Your task to perform on an android device: Go to calendar. Show me events next week Image 0: 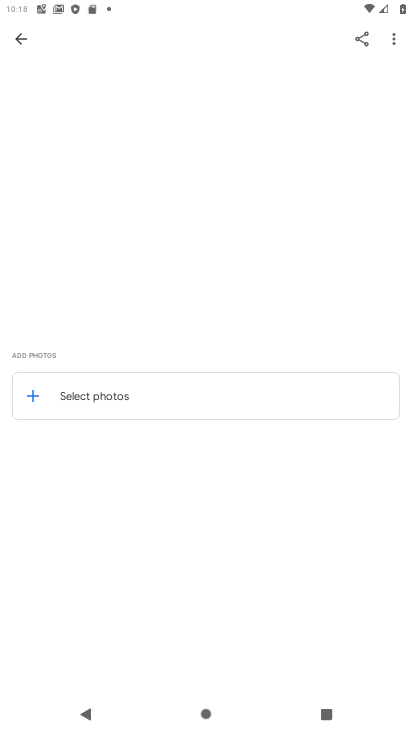
Step 0: press home button
Your task to perform on an android device: Go to calendar. Show me events next week Image 1: 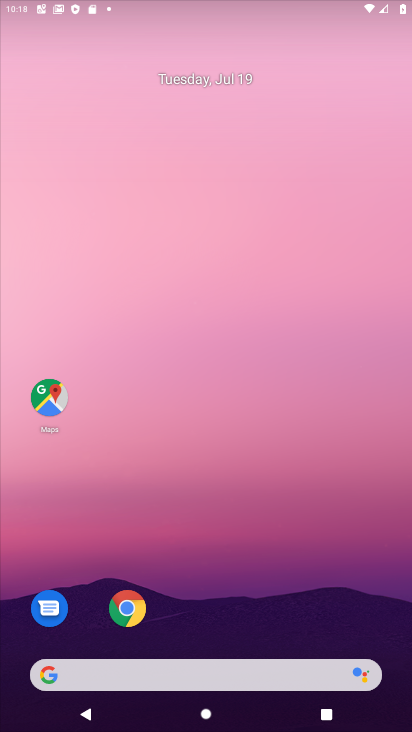
Step 1: drag from (256, 580) to (257, 223)
Your task to perform on an android device: Go to calendar. Show me events next week Image 2: 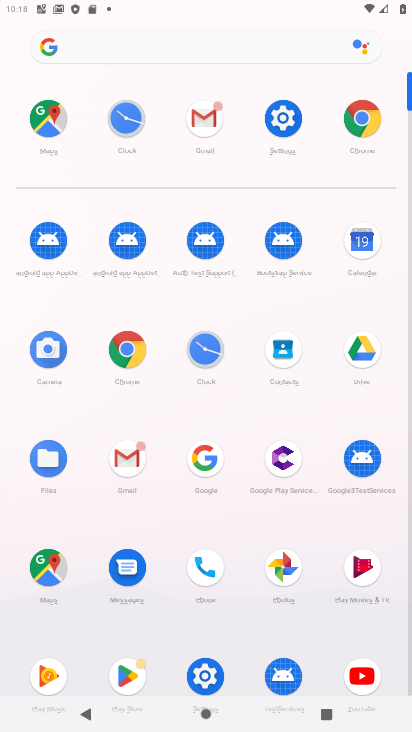
Step 2: click (368, 252)
Your task to perform on an android device: Go to calendar. Show me events next week Image 3: 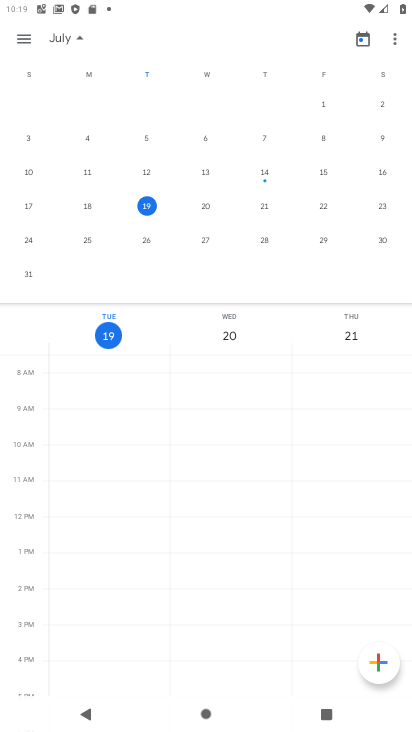
Step 3: click (149, 239)
Your task to perform on an android device: Go to calendar. Show me events next week Image 4: 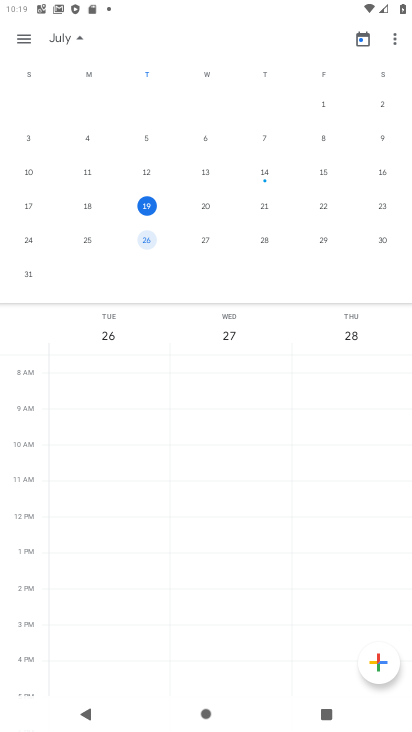
Step 4: click (63, 36)
Your task to perform on an android device: Go to calendar. Show me events next week Image 5: 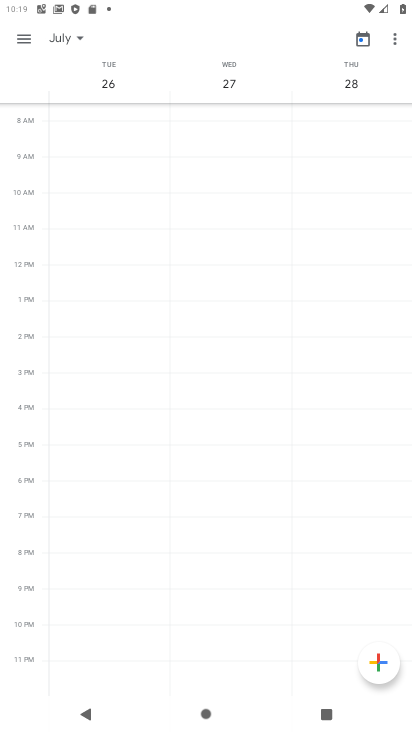
Step 5: click (26, 35)
Your task to perform on an android device: Go to calendar. Show me events next week Image 6: 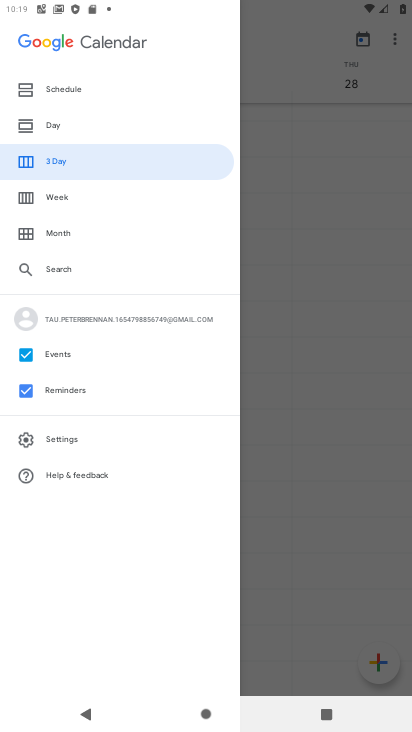
Step 6: click (69, 190)
Your task to perform on an android device: Go to calendar. Show me events next week Image 7: 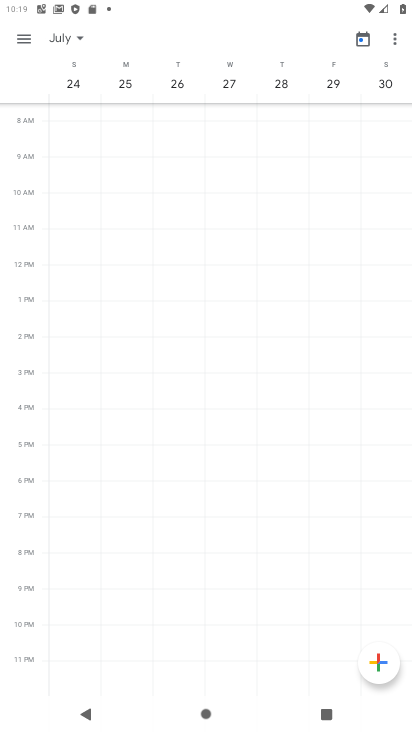
Step 7: task complete